Your task to perform on an android device: snooze an email in the gmail app Image 0: 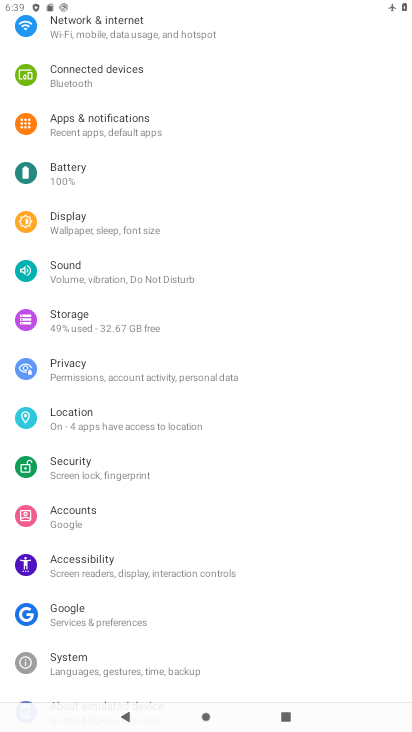
Step 0: press home button
Your task to perform on an android device: snooze an email in the gmail app Image 1: 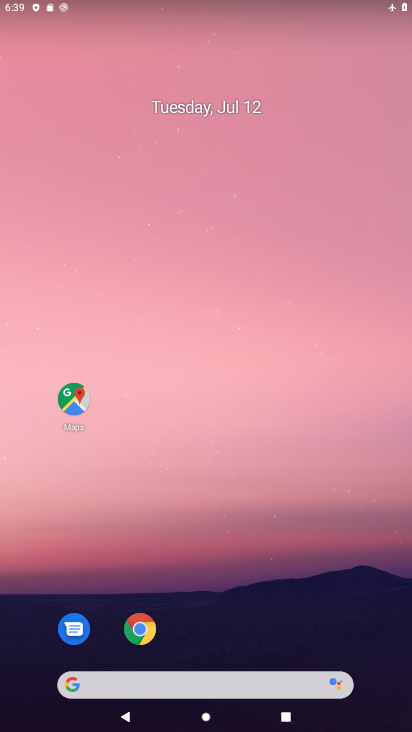
Step 1: drag from (204, 564) to (206, 0)
Your task to perform on an android device: snooze an email in the gmail app Image 2: 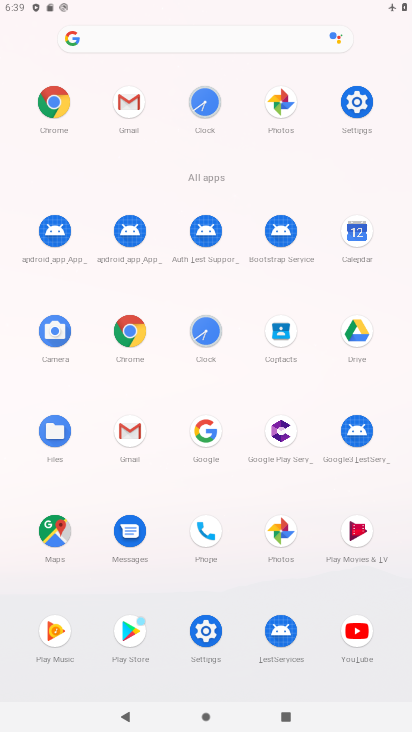
Step 2: click (128, 100)
Your task to perform on an android device: snooze an email in the gmail app Image 3: 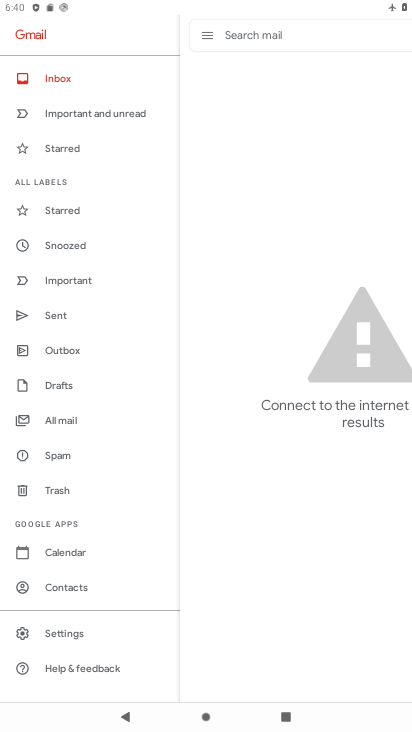
Step 3: click (61, 419)
Your task to perform on an android device: snooze an email in the gmail app Image 4: 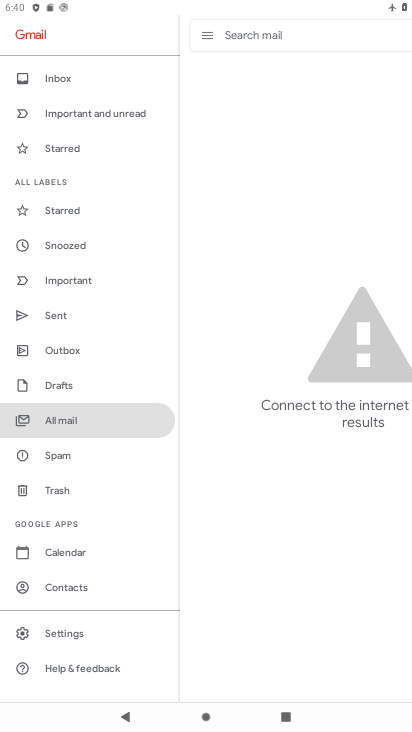
Step 4: task complete